Your task to perform on an android device: Open the calendar app, open the side menu, and click the "Day" option Image 0: 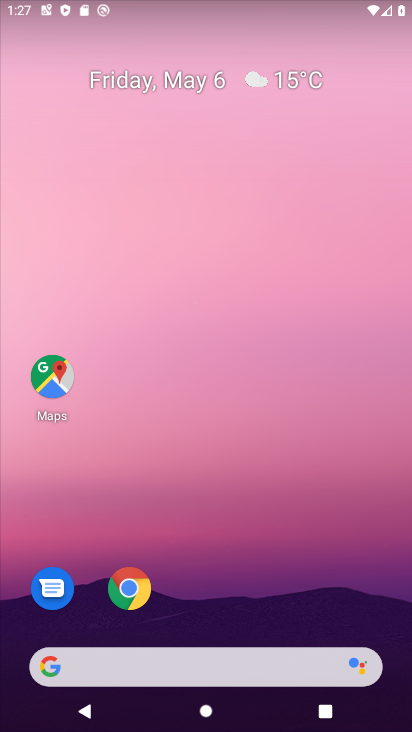
Step 0: drag from (154, 510) to (164, 170)
Your task to perform on an android device: Open the calendar app, open the side menu, and click the "Day" option Image 1: 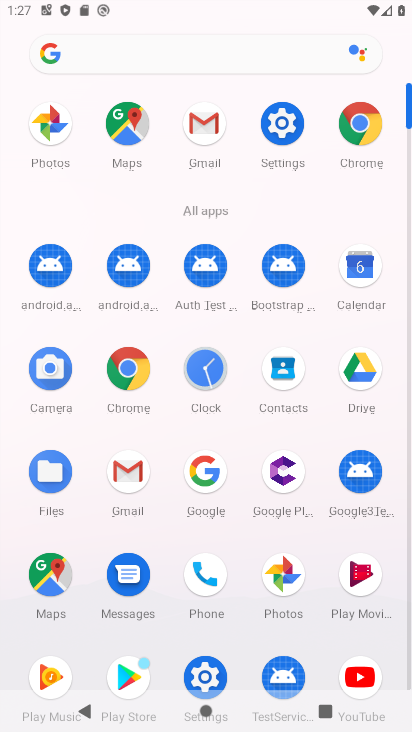
Step 1: click (371, 251)
Your task to perform on an android device: Open the calendar app, open the side menu, and click the "Day" option Image 2: 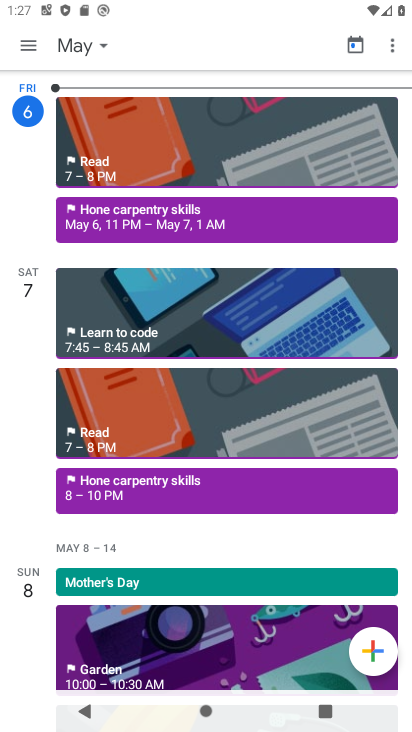
Step 2: click (10, 36)
Your task to perform on an android device: Open the calendar app, open the side menu, and click the "Day" option Image 3: 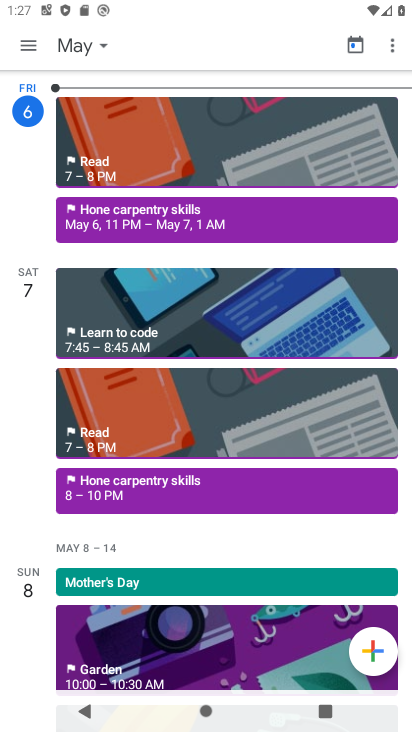
Step 3: drag from (204, 638) to (227, 226)
Your task to perform on an android device: Open the calendar app, open the side menu, and click the "Day" option Image 4: 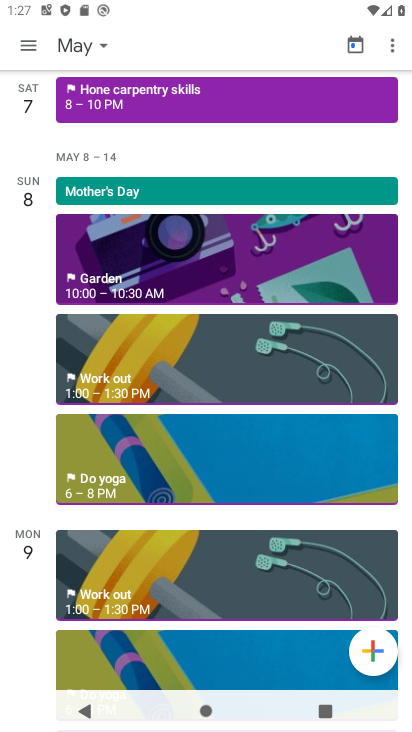
Step 4: drag from (213, 616) to (256, 307)
Your task to perform on an android device: Open the calendar app, open the side menu, and click the "Day" option Image 5: 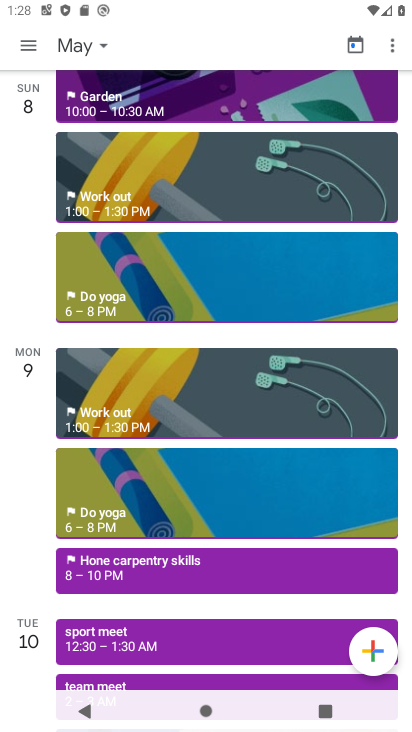
Step 5: drag from (197, 665) to (266, 325)
Your task to perform on an android device: Open the calendar app, open the side menu, and click the "Day" option Image 6: 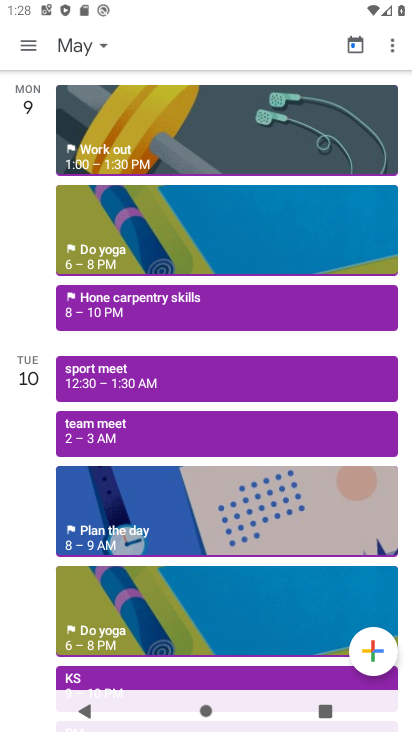
Step 6: click (20, 45)
Your task to perform on an android device: Open the calendar app, open the side menu, and click the "Day" option Image 7: 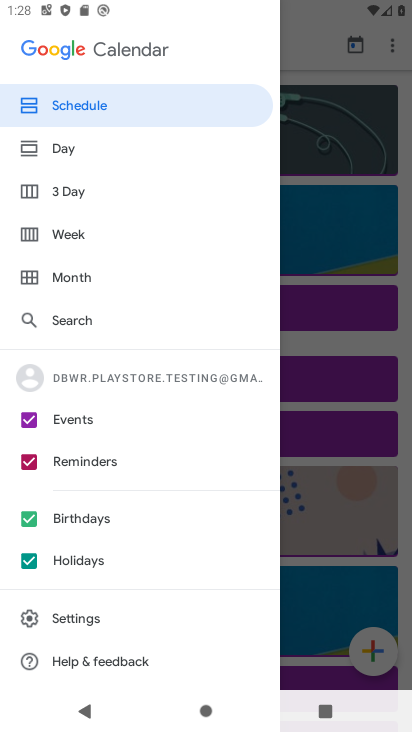
Step 7: click (67, 159)
Your task to perform on an android device: Open the calendar app, open the side menu, and click the "Day" option Image 8: 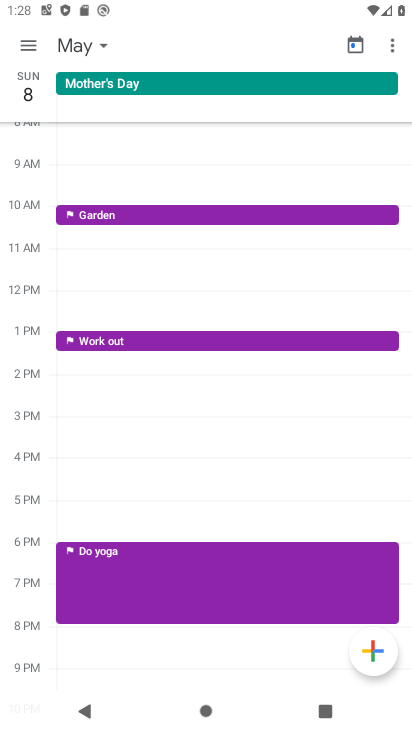
Step 8: task complete